Your task to perform on an android device: What's the latest news in astrophysics? Image 0: 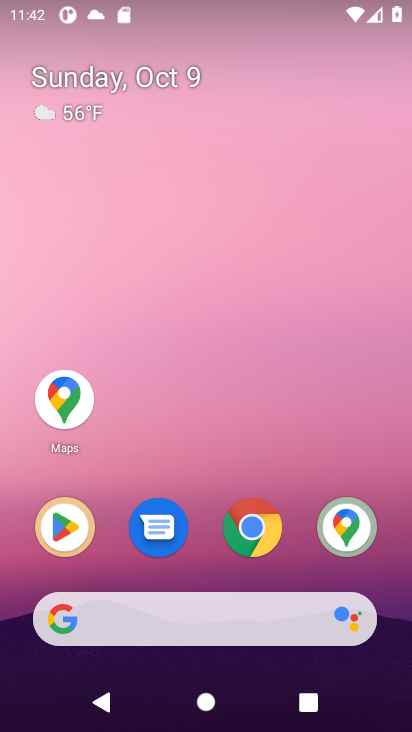
Step 0: click (251, 523)
Your task to perform on an android device: What's the latest news in astrophysics? Image 1: 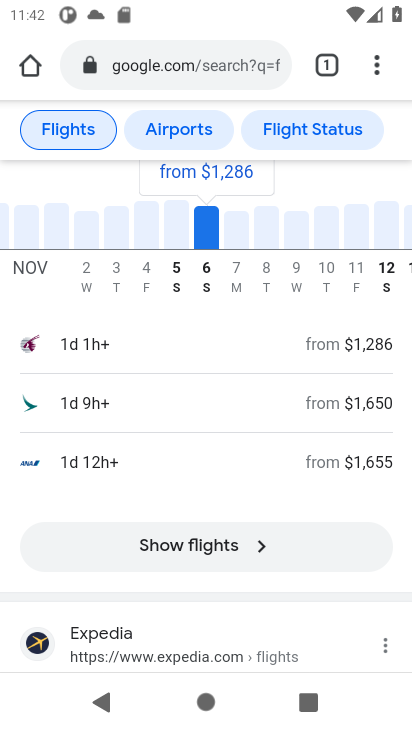
Step 1: click (190, 72)
Your task to perform on an android device: What's the latest news in astrophysics? Image 2: 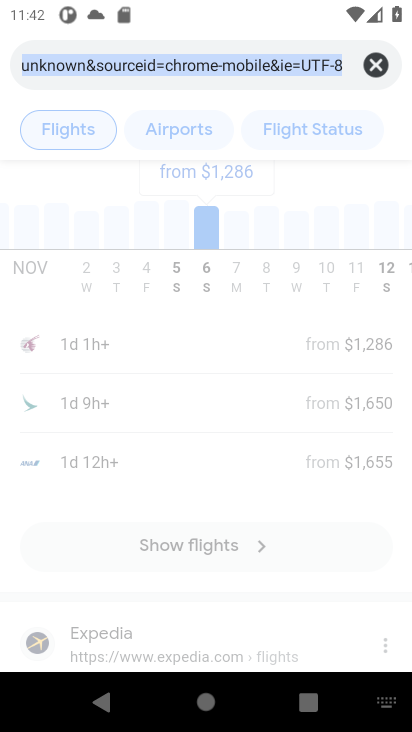
Step 2: click (367, 63)
Your task to perform on an android device: What's the latest news in astrophysics? Image 3: 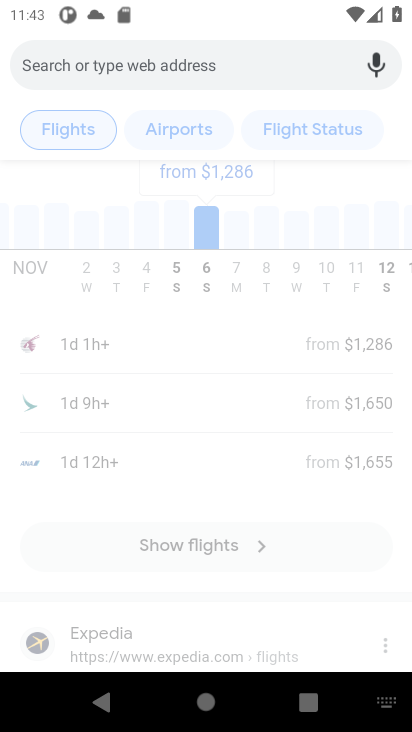
Step 3: type "What's the latest news in astrophysics?"
Your task to perform on an android device: What's the latest news in astrophysics? Image 4: 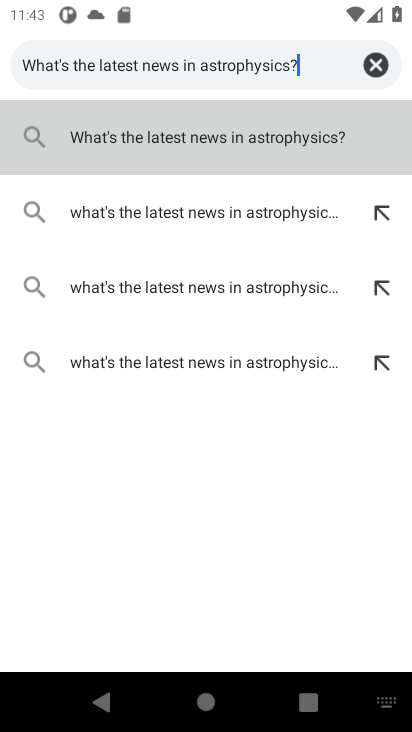
Step 4: click (221, 137)
Your task to perform on an android device: What's the latest news in astrophysics? Image 5: 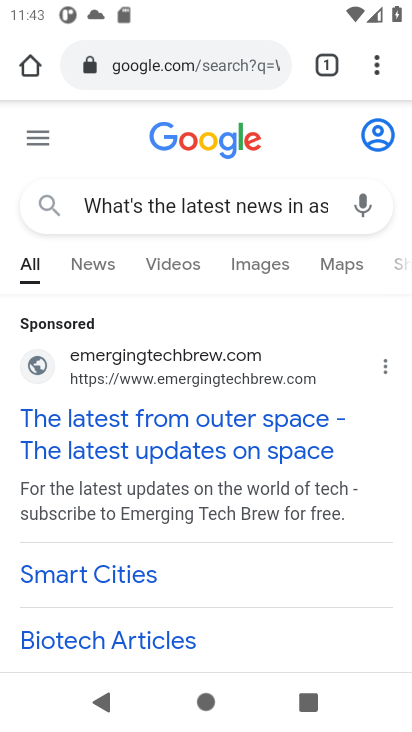
Step 5: click (154, 466)
Your task to perform on an android device: What's the latest news in astrophysics? Image 6: 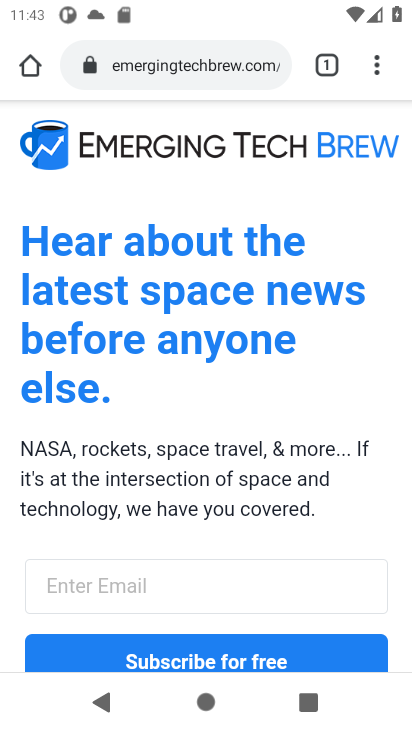
Step 6: drag from (201, 395) to (192, 146)
Your task to perform on an android device: What's the latest news in astrophysics? Image 7: 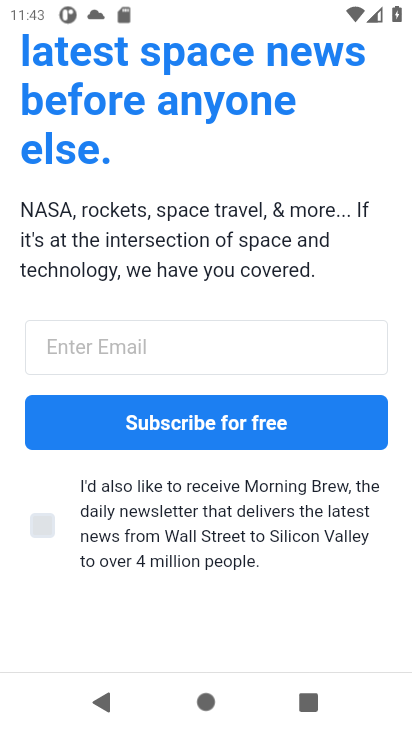
Step 7: drag from (210, 482) to (203, 249)
Your task to perform on an android device: What's the latest news in astrophysics? Image 8: 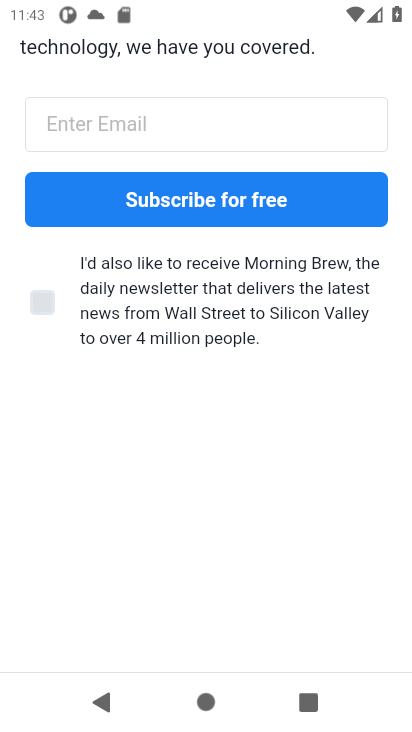
Step 8: drag from (190, 468) to (188, 247)
Your task to perform on an android device: What's the latest news in astrophysics? Image 9: 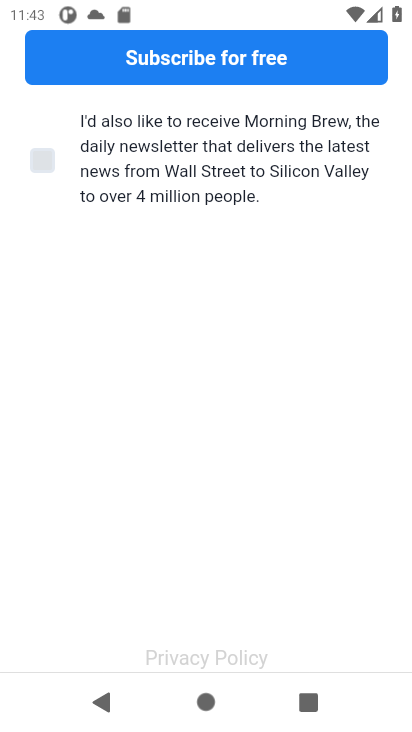
Step 9: drag from (196, 464) to (197, 121)
Your task to perform on an android device: What's the latest news in astrophysics? Image 10: 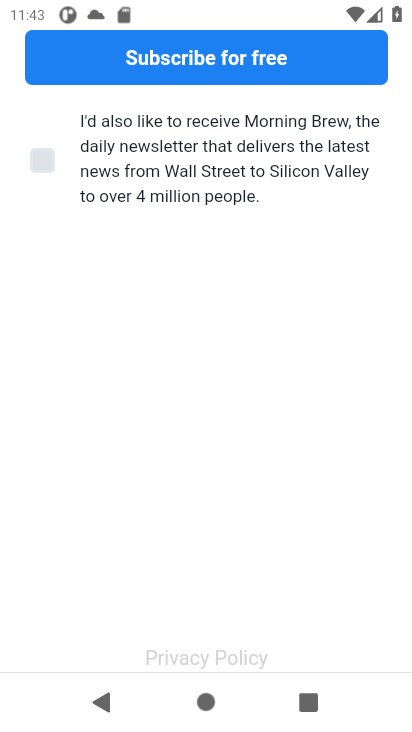
Step 10: press back button
Your task to perform on an android device: What's the latest news in astrophysics? Image 11: 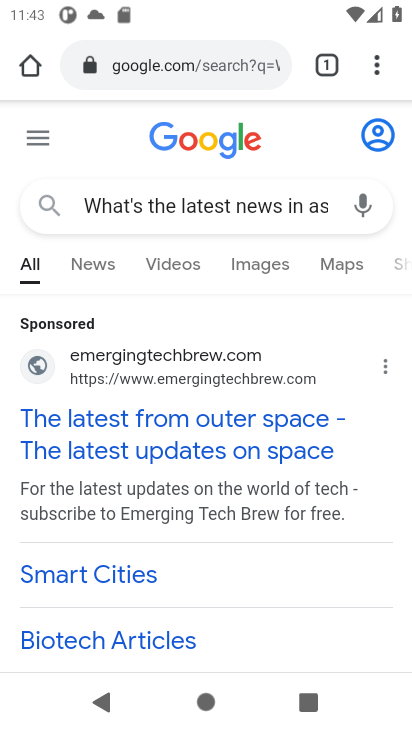
Step 11: drag from (232, 476) to (248, 157)
Your task to perform on an android device: What's the latest news in astrophysics? Image 12: 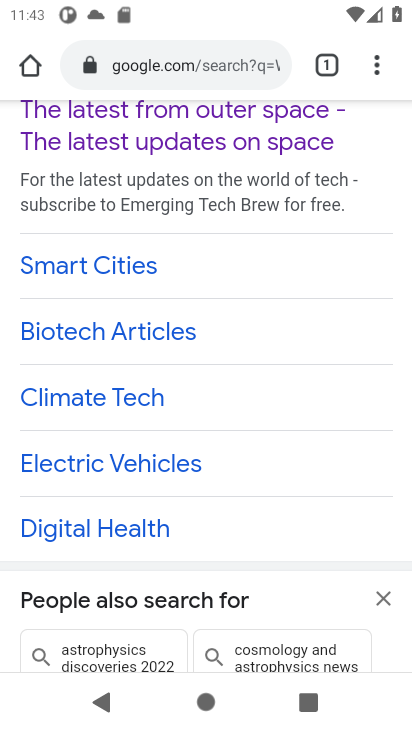
Step 12: drag from (256, 480) to (247, 163)
Your task to perform on an android device: What's the latest news in astrophysics? Image 13: 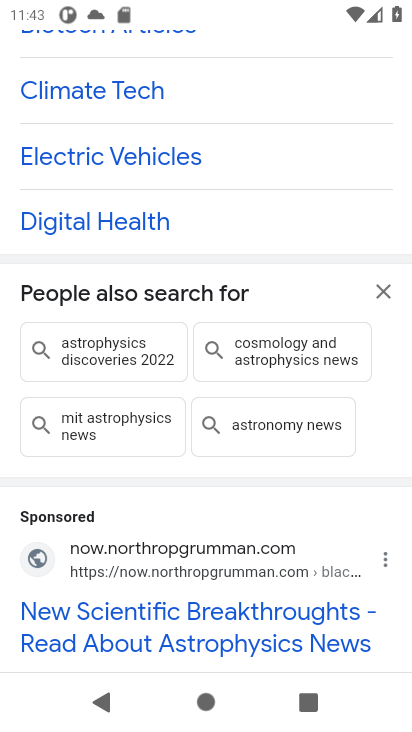
Step 13: drag from (232, 535) to (226, 228)
Your task to perform on an android device: What's the latest news in astrophysics? Image 14: 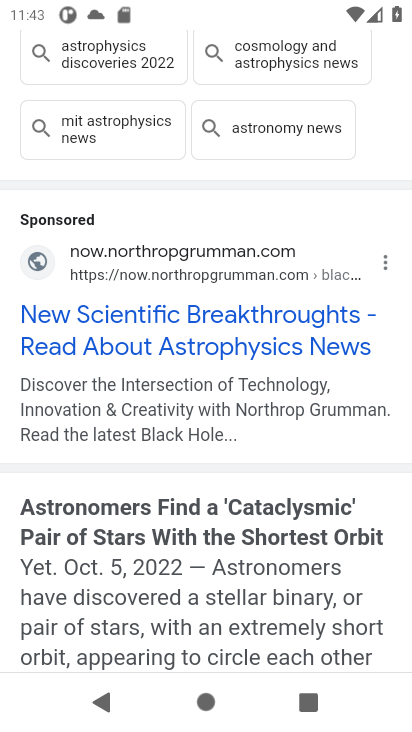
Step 14: click (148, 337)
Your task to perform on an android device: What's the latest news in astrophysics? Image 15: 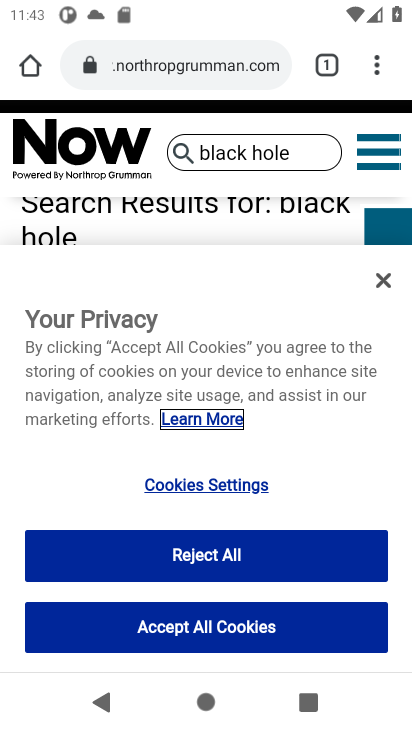
Step 15: task complete